Your task to perform on an android device: change alarm snooze length Image 0: 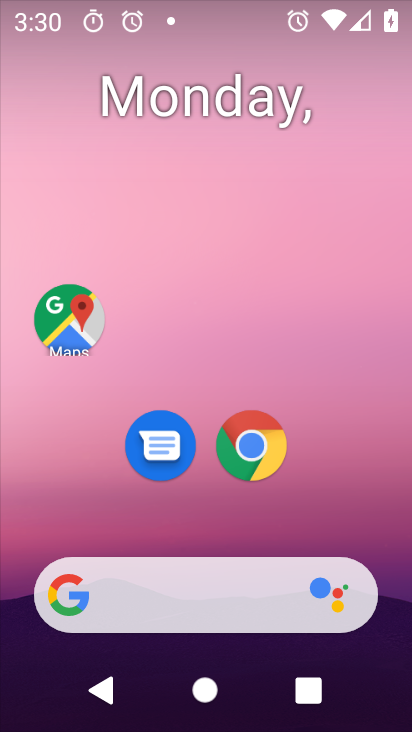
Step 0: drag from (222, 570) to (344, 67)
Your task to perform on an android device: change alarm snooze length Image 1: 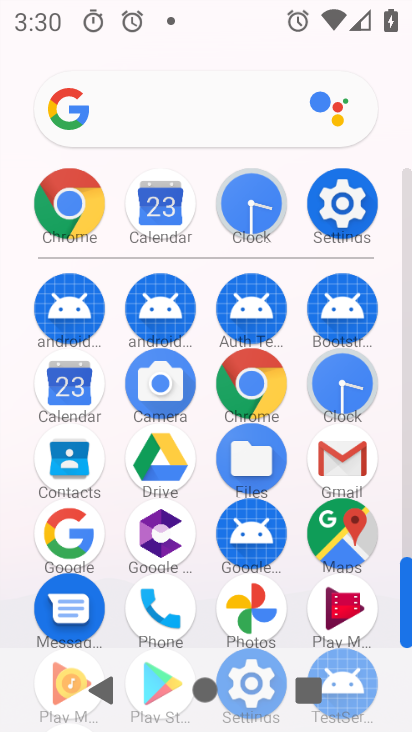
Step 1: click (325, 371)
Your task to perform on an android device: change alarm snooze length Image 2: 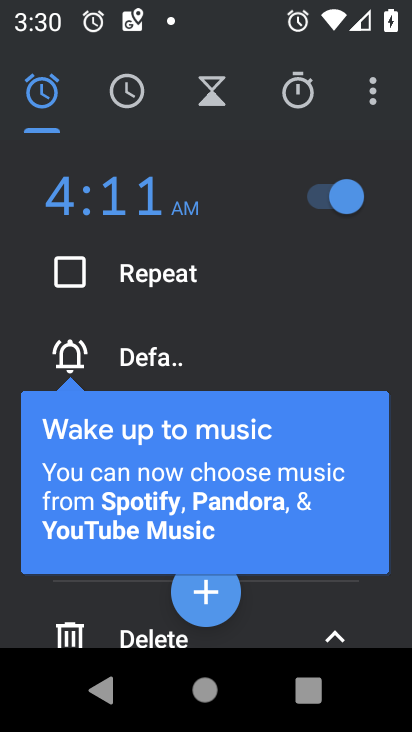
Step 2: click (365, 95)
Your task to perform on an android device: change alarm snooze length Image 3: 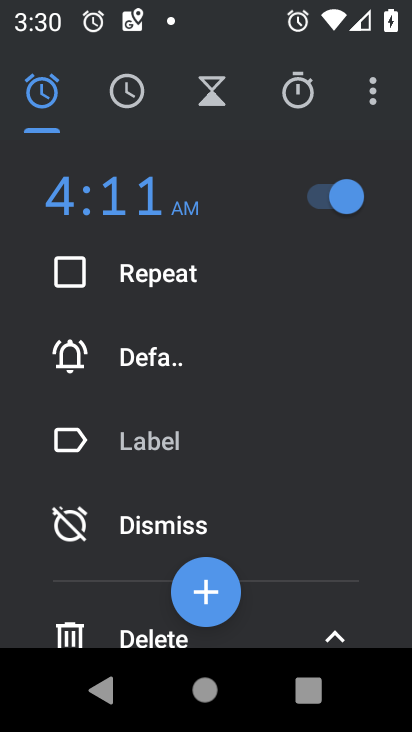
Step 3: click (365, 95)
Your task to perform on an android device: change alarm snooze length Image 4: 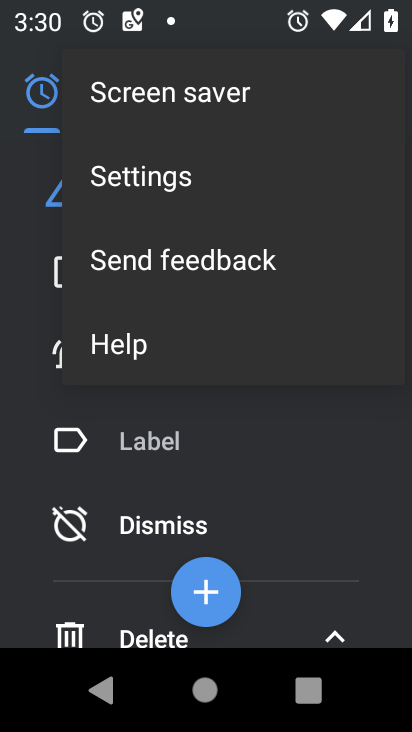
Step 4: click (148, 193)
Your task to perform on an android device: change alarm snooze length Image 5: 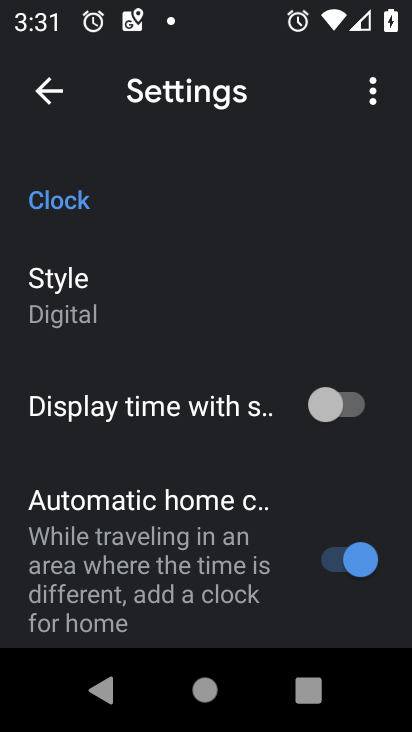
Step 5: drag from (118, 530) to (137, 8)
Your task to perform on an android device: change alarm snooze length Image 6: 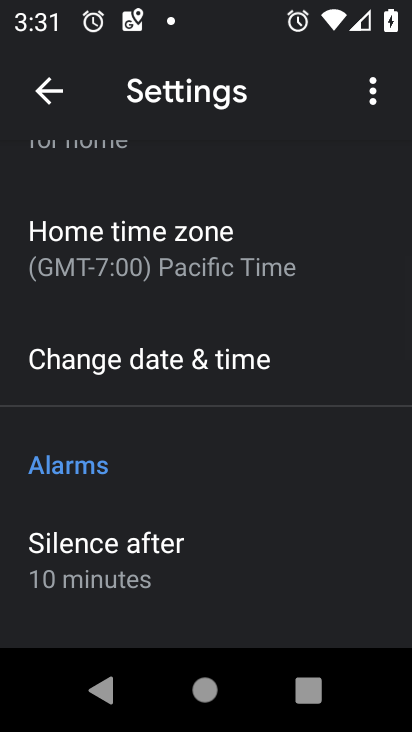
Step 6: drag from (131, 425) to (165, 56)
Your task to perform on an android device: change alarm snooze length Image 7: 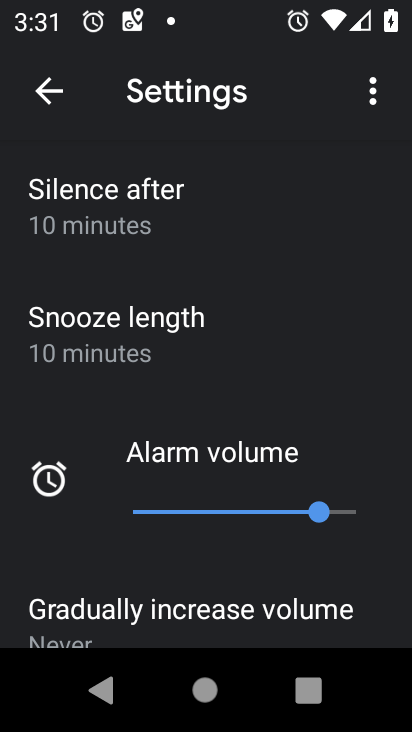
Step 7: click (150, 368)
Your task to perform on an android device: change alarm snooze length Image 8: 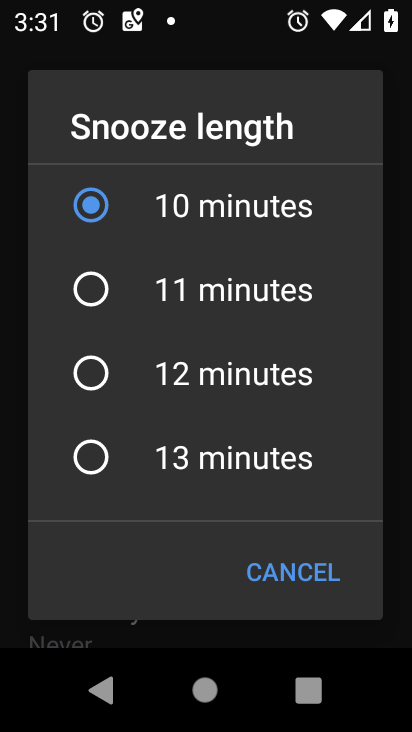
Step 8: click (234, 440)
Your task to perform on an android device: change alarm snooze length Image 9: 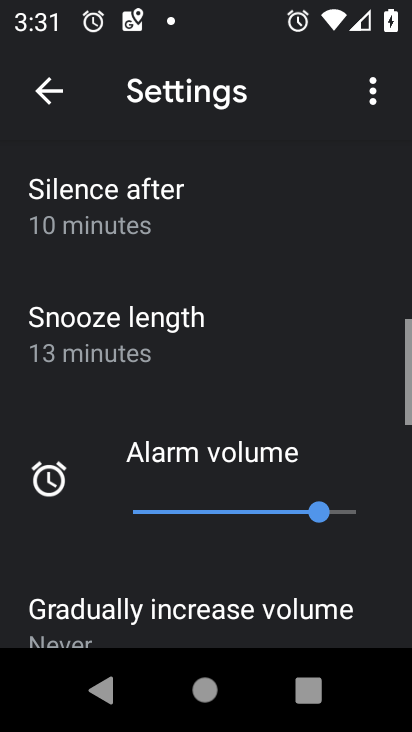
Step 9: task complete